Your task to perform on an android device: Search for Mexican restaurants on Maps Image 0: 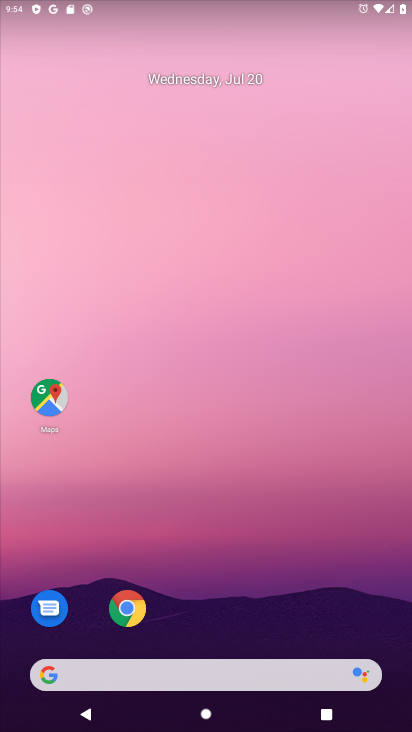
Step 0: press home button
Your task to perform on an android device: Search for Mexican restaurants on Maps Image 1: 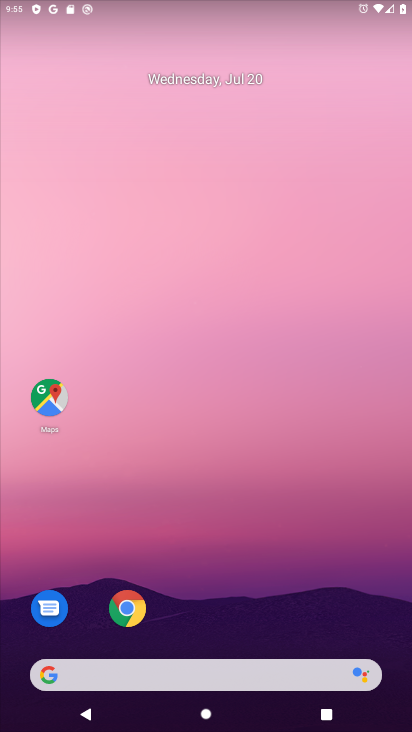
Step 1: click (47, 394)
Your task to perform on an android device: Search for Mexican restaurants on Maps Image 2: 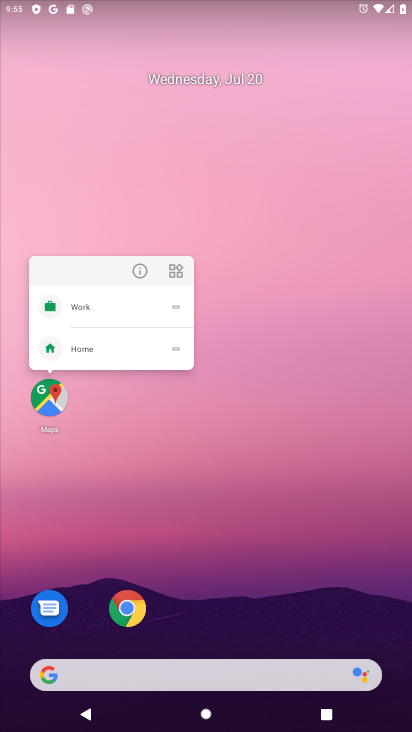
Step 2: click (48, 393)
Your task to perform on an android device: Search for Mexican restaurants on Maps Image 3: 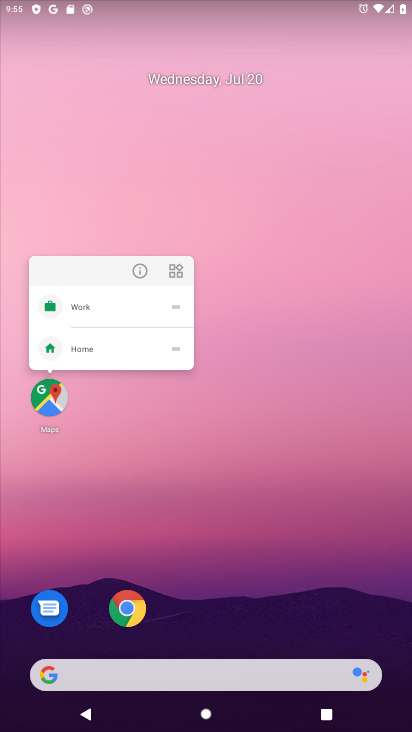
Step 3: click (46, 394)
Your task to perform on an android device: Search for Mexican restaurants on Maps Image 4: 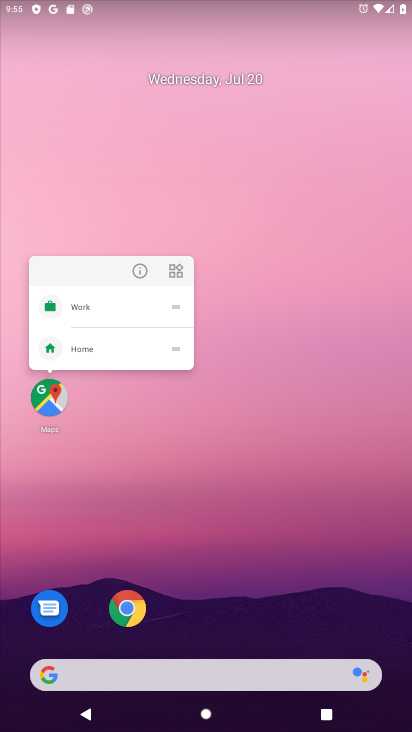
Step 4: click (48, 395)
Your task to perform on an android device: Search for Mexican restaurants on Maps Image 5: 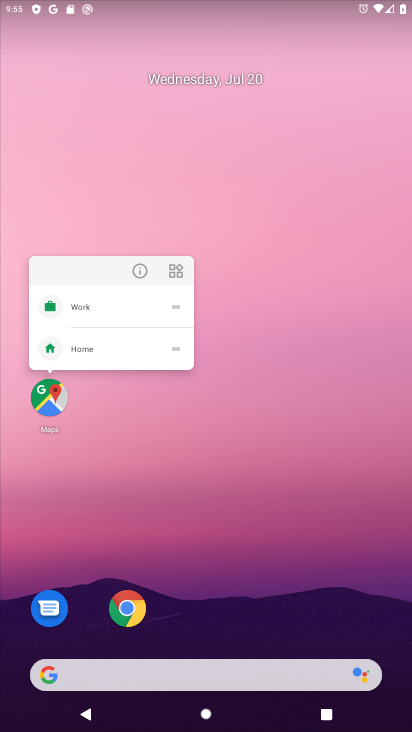
Step 5: click (48, 395)
Your task to perform on an android device: Search for Mexican restaurants on Maps Image 6: 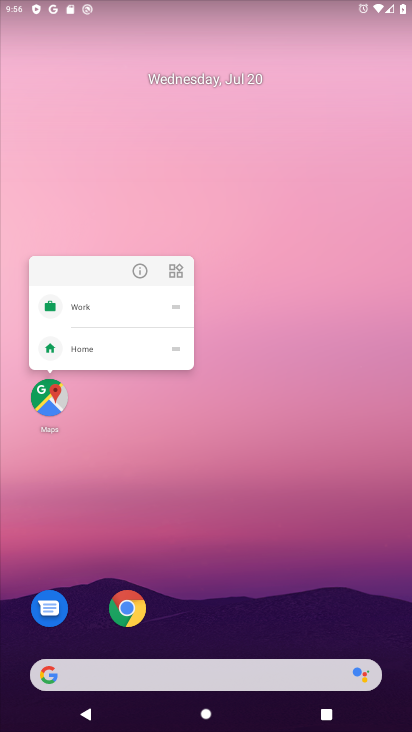
Step 6: click (47, 397)
Your task to perform on an android device: Search for Mexican restaurants on Maps Image 7: 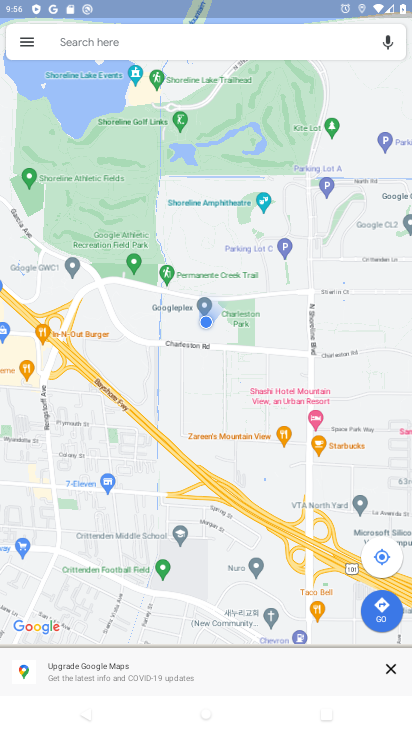
Step 7: click (91, 36)
Your task to perform on an android device: Search for Mexican restaurants on Maps Image 8: 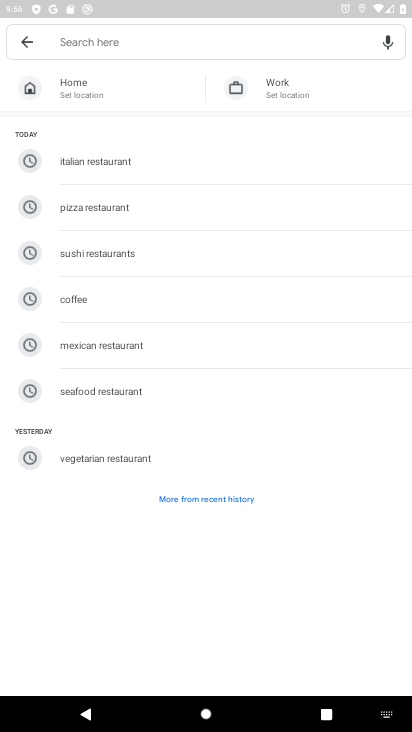
Step 8: click (99, 346)
Your task to perform on an android device: Search for Mexican restaurants on Maps Image 9: 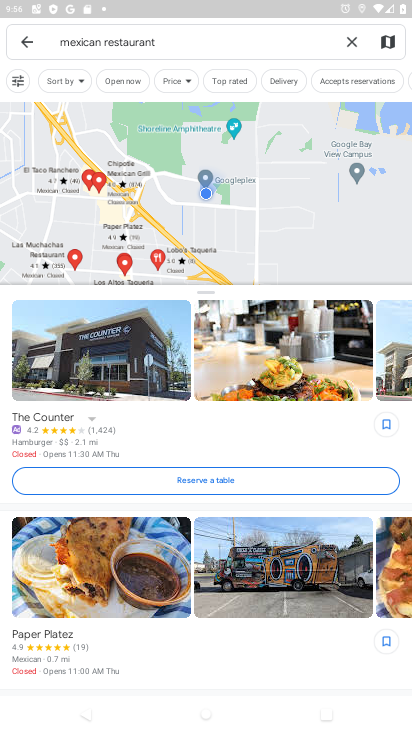
Step 9: task complete